Your task to perform on an android device: Go to CNN.com Image 0: 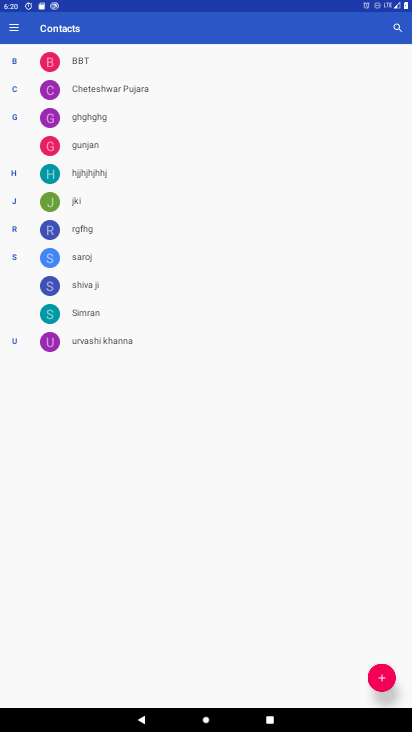
Step 0: press home button
Your task to perform on an android device: Go to CNN.com Image 1: 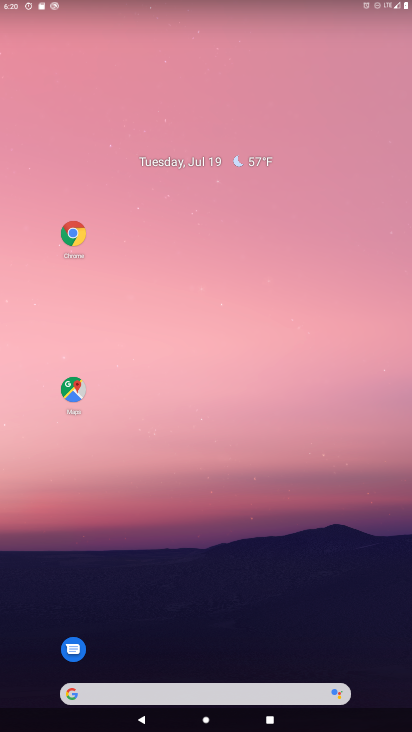
Step 1: click (70, 233)
Your task to perform on an android device: Go to CNN.com Image 2: 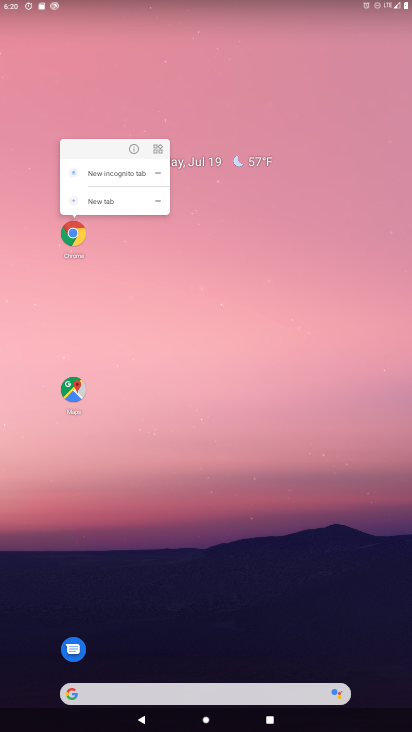
Step 2: click (70, 241)
Your task to perform on an android device: Go to CNN.com Image 3: 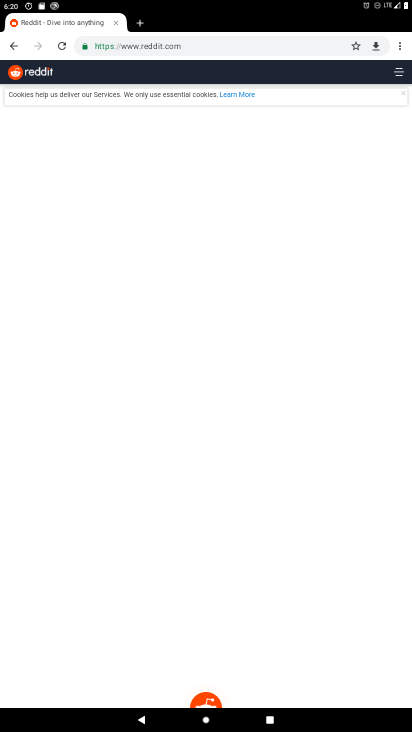
Step 3: click (175, 43)
Your task to perform on an android device: Go to CNN.com Image 4: 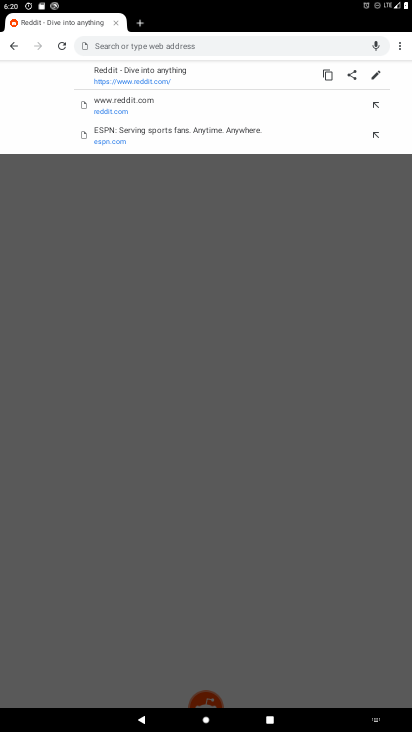
Step 4: type "www.cnn.com"
Your task to perform on an android device: Go to CNN.com Image 5: 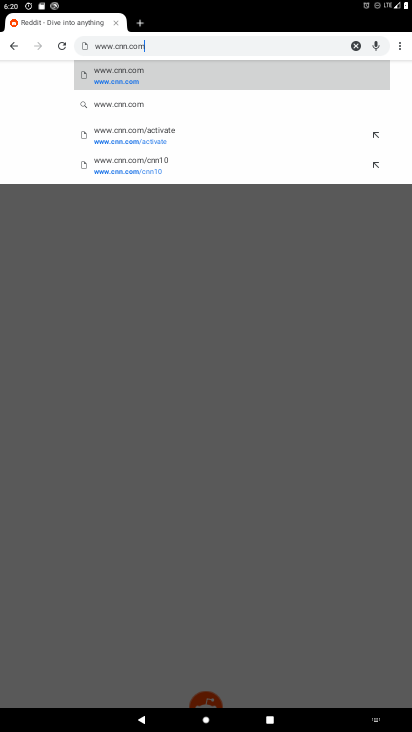
Step 5: click (132, 75)
Your task to perform on an android device: Go to CNN.com Image 6: 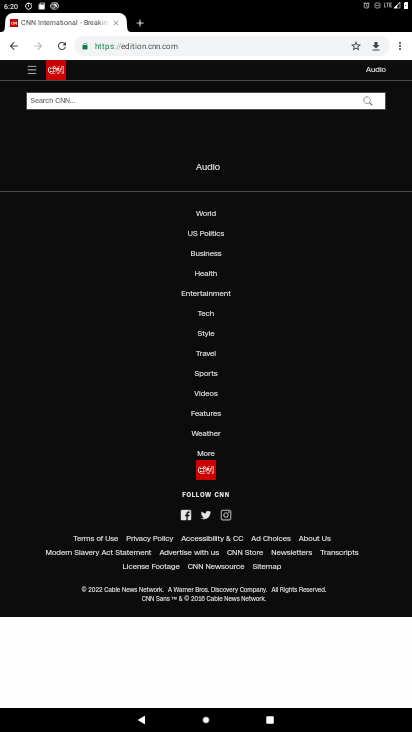
Step 6: task complete